Your task to perform on an android device: Is it going to rain tomorrow? Image 0: 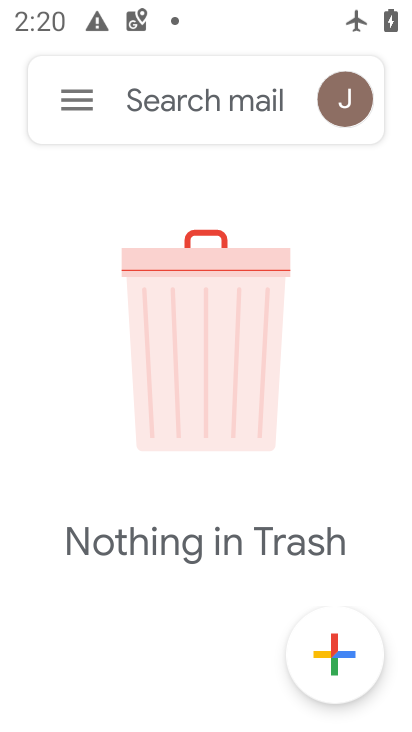
Step 0: press back button
Your task to perform on an android device: Is it going to rain tomorrow? Image 1: 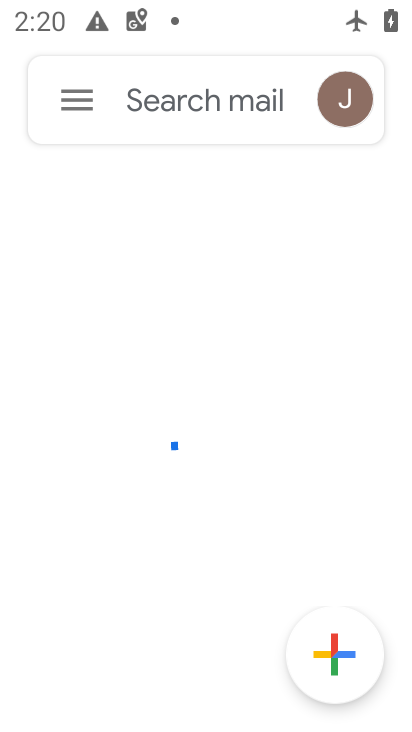
Step 1: press home button
Your task to perform on an android device: Is it going to rain tomorrow? Image 2: 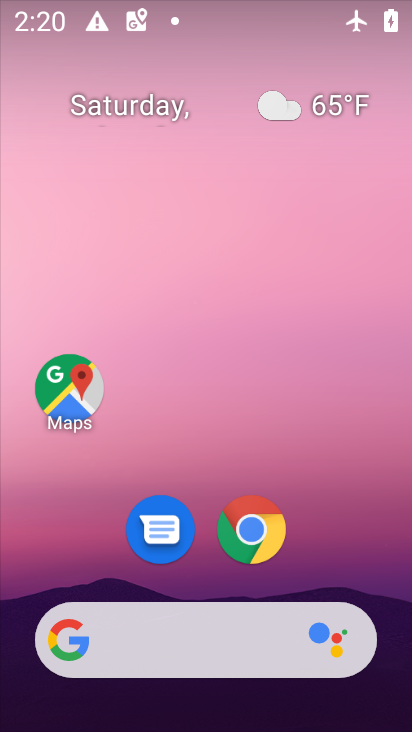
Step 2: click (256, 554)
Your task to perform on an android device: Is it going to rain tomorrow? Image 3: 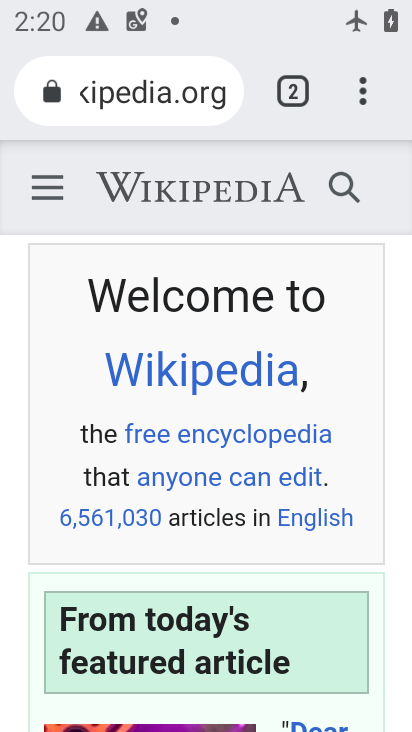
Step 3: click (149, 95)
Your task to perform on an android device: Is it going to rain tomorrow? Image 4: 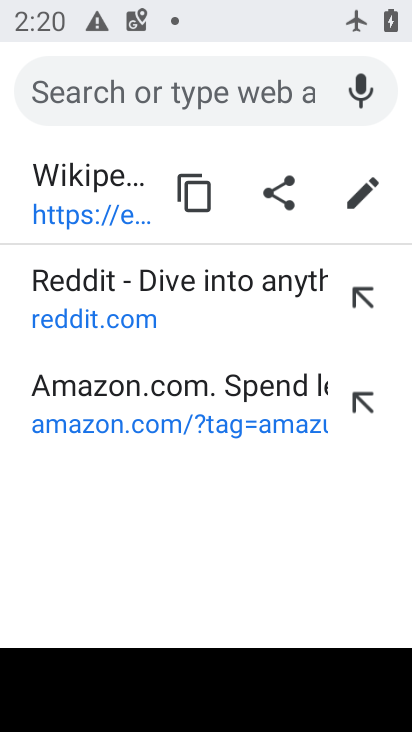
Step 4: type "Is it going to rain tomorrow?"
Your task to perform on an android device: Is it going to rain tomorrow? Image 5: 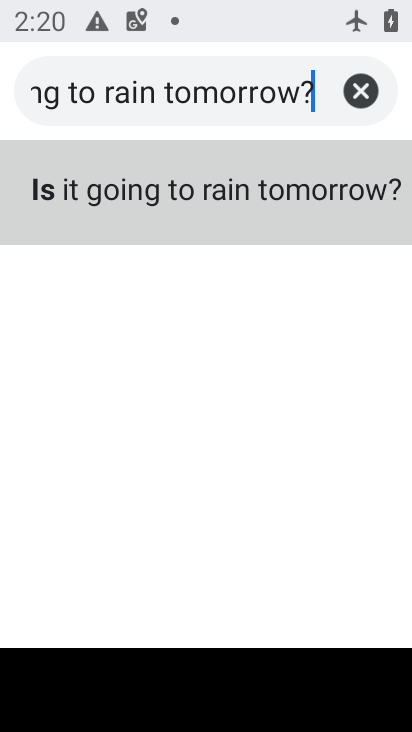
Step 5: click (229, 185)
Your task to perform on an android device: Is it going to rain tomorrow? Image 6: 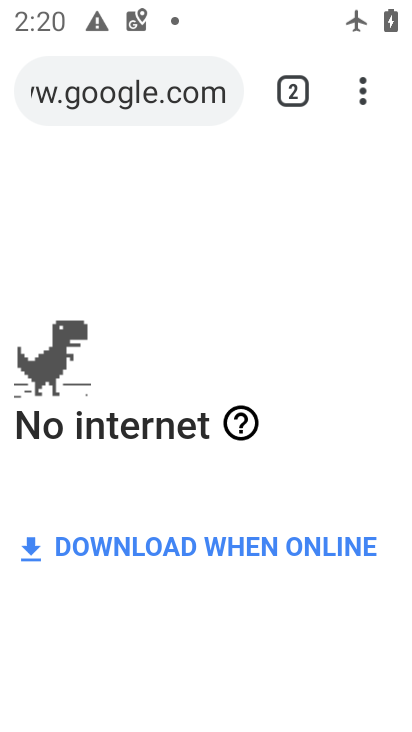
Step 6: task complete